Your task to perform on an android device: What's the weather going to be this weekend? Image 0: 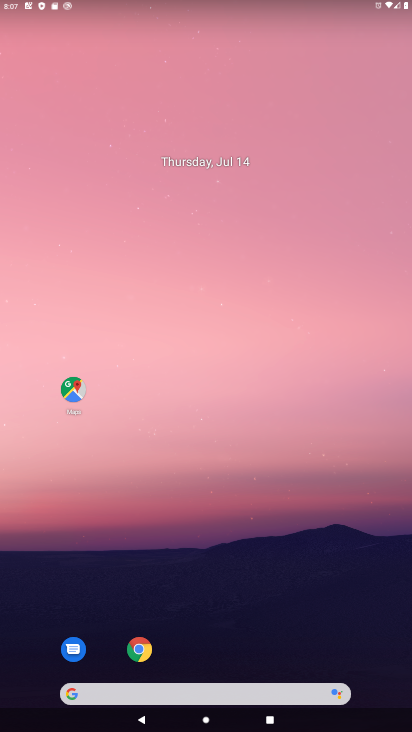
Step 0: press home button
Your task to perform on an android device: What's the weather going to be this weekend? Image 1: 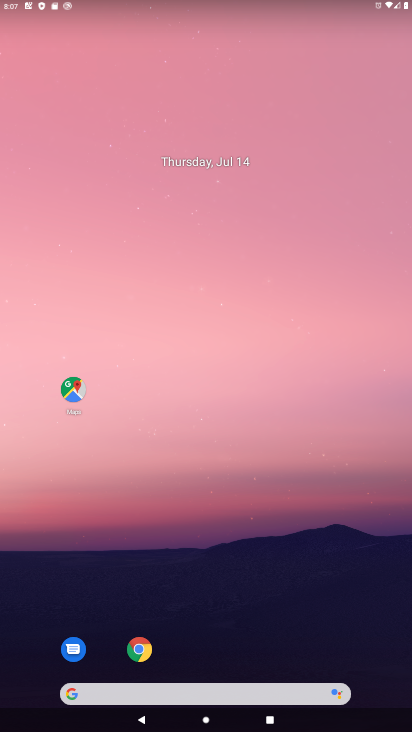
Step 1: click (177, 684)
Your task to perform on an android device: What's the weather going to be this weekend? Image 2: 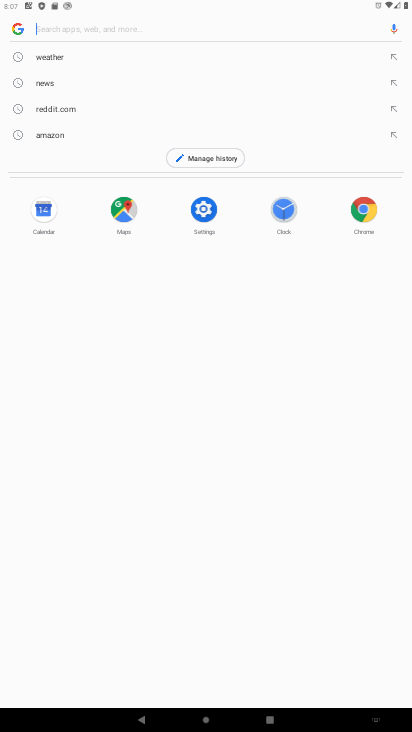
Step 2: click (65, 53)
Your task to perform on an android device: What's the weather going to be this weekend? Image 3: 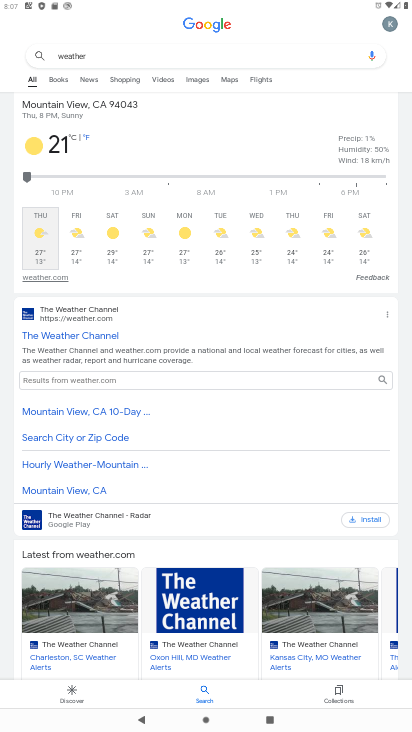
Step 3: click (113, 225)
Your task to perform on an android device: What's the weather going to be this weekend? Image 4: 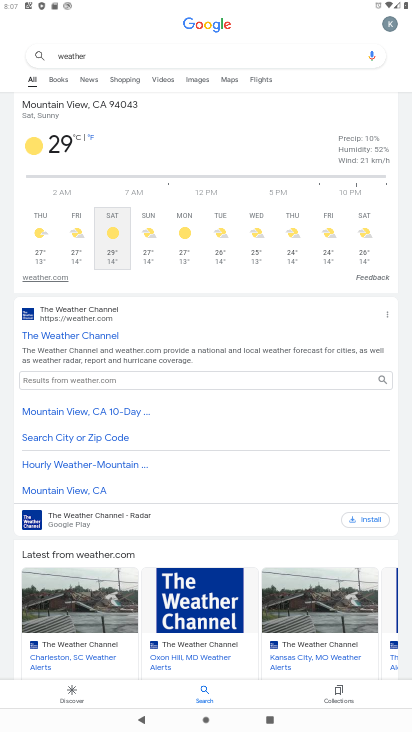
Step 4: click (148, 229)
Your task to perform on an android device: What's the weather going to be this weekend? Image 5: 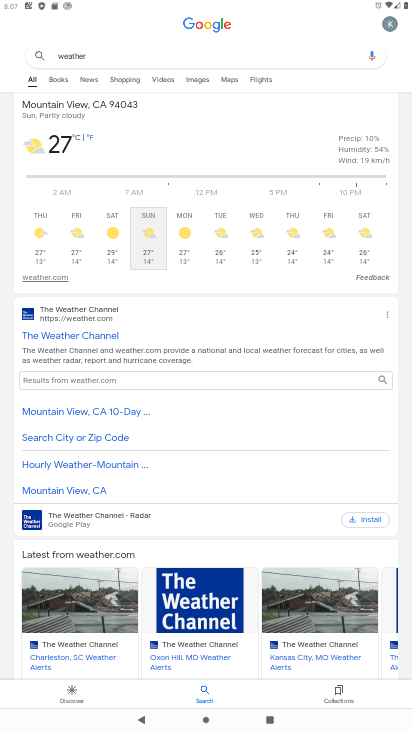
Step 5: task complete